Your task to perform on an android device: Open network settings Image 0: 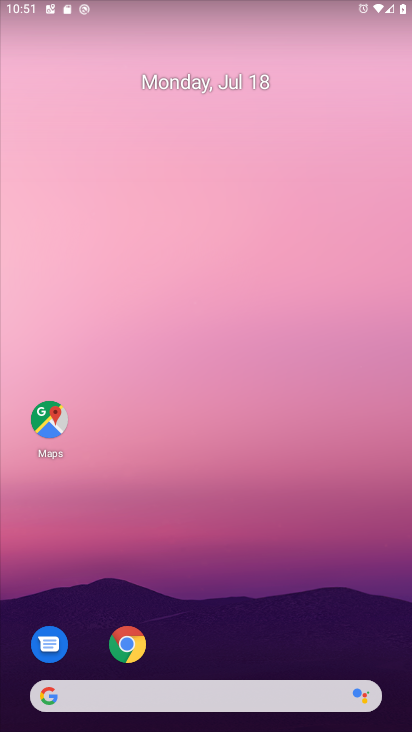
Step 0: drag from (197, 672) to (204, 229)
Your task to perform on an android device: Open network settings Image 1: 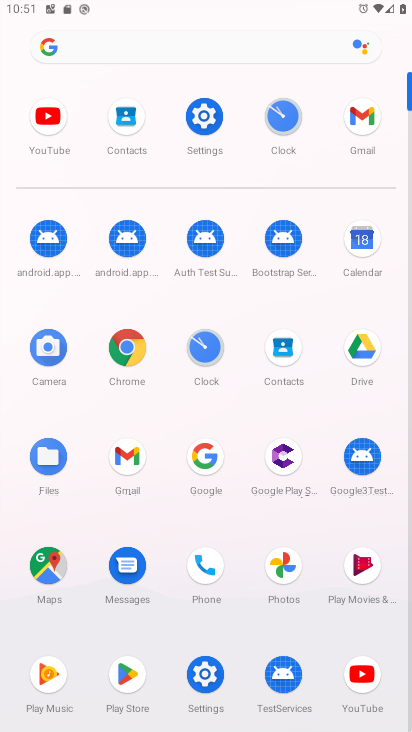
Step 1: click (206, 152)
Your task to perform on an android device: Open network settings Image 2: 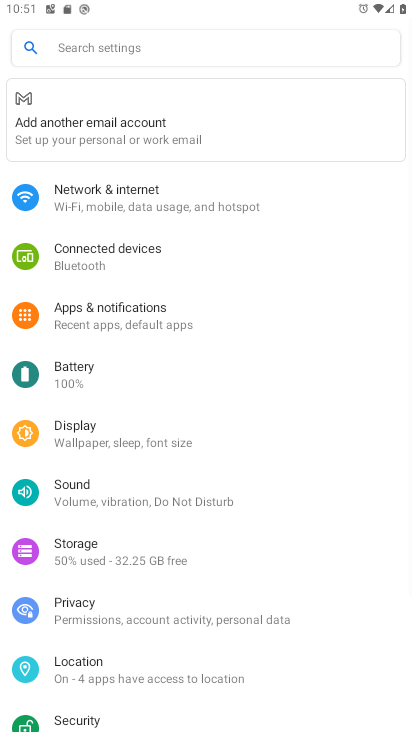
Step 2: task complete